Your task to perform on an android device: Search for a 3D printer on aliexpress. Image 0: 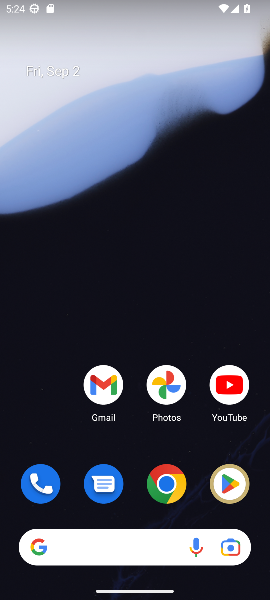
Step 0: click (165, 483)
Your task to perform on an android device: Search for a 3D printer on aliexpress. Image 1: 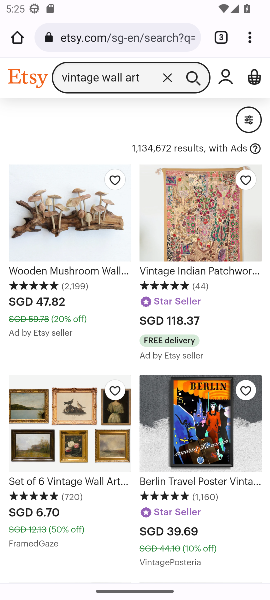
Step 1: click (129, 36)
Your task to perform on an android device: Search for a 3D printer on aliexpress. Image 2: 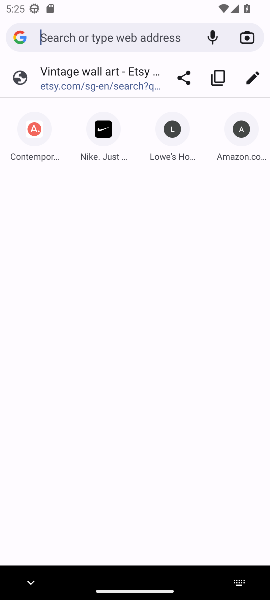
Step 2: type "aliexpress"
Your task to perform on an android device: Search for a 3D printer on aliexpress. Image 3: 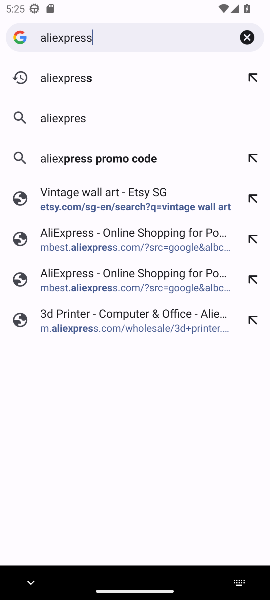
Step 3: press enter
Your task to perform on an android device: Search for a 3D printer on aliexpress. Image 4: 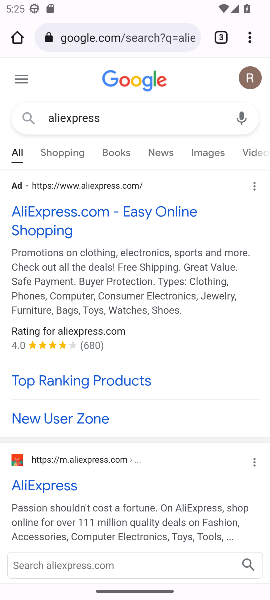
Step 4: click (36, 486)
Your task to perform on an android device: Search for a 3D printer on aliexpress. Image 5: 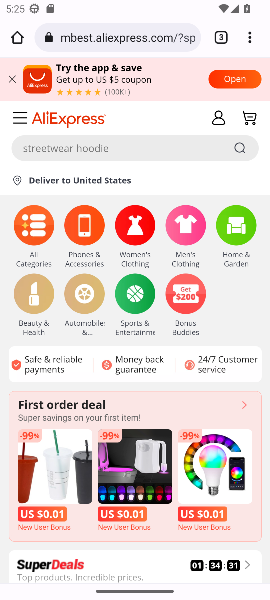
Step 5: click (137, 141)
Your task to perform on an android device: Search for a 3D printer on aliexpress. Image 6: 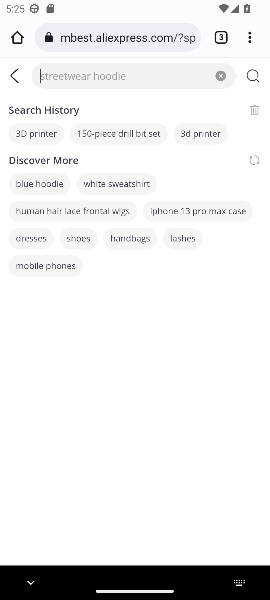
Step 6: type "3D printer "
Your task to perform on an android device: Search for a 3D printer on aliexpress. Image 7: 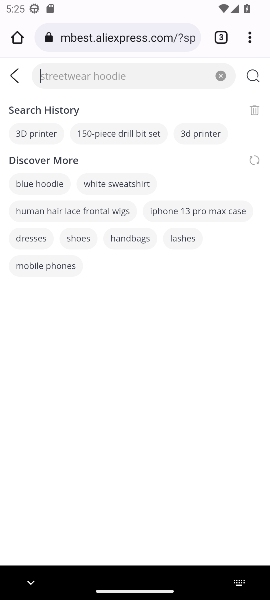
Step 7: press enter
Your task to perform on an android device: Search for a 3D printer on aliexpress. Image 8: 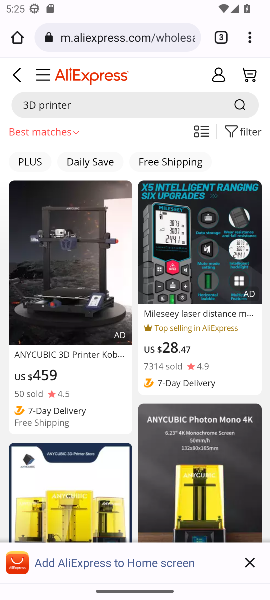
Step 8: task complete